Your task to perform on an android device: toggle improve location accuracy Image 0: 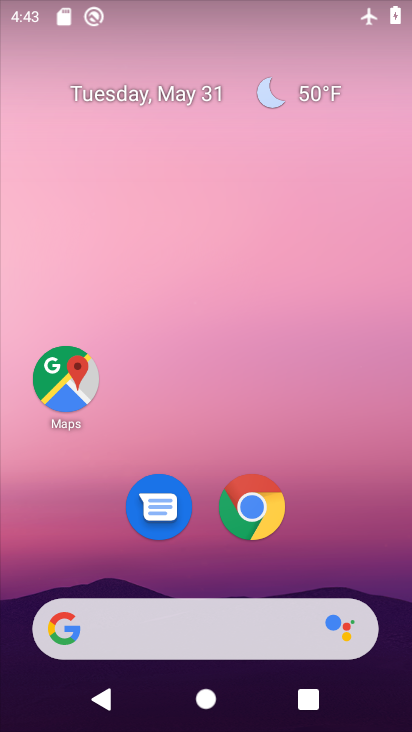
Step 0: click (194, 230)
Your task to perform on an android device: toggle improve location accuracy Image 1: 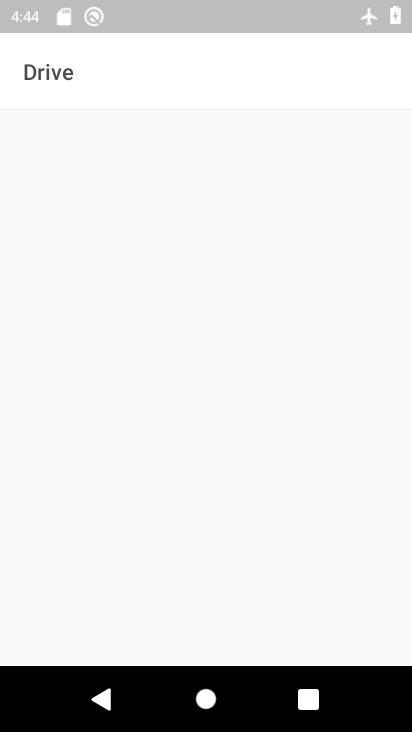
Step 1: press home button
Your task to perform on an android device: toggle improve location accuracy Image 2: 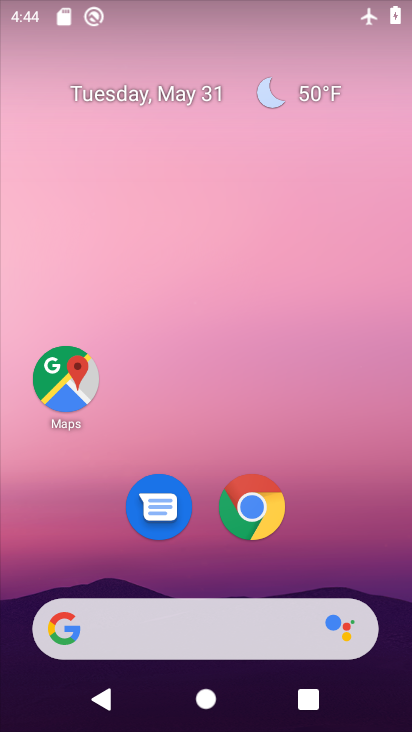
Step 2: drag from (322, 543) to (365, 48)
Your task to perform on an android device: toggle improve location accuracy Image 3: 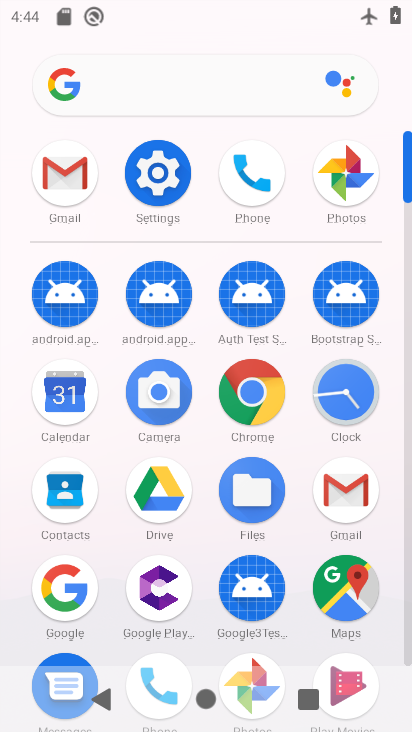
Step 3: click (160, 161)
Your task to perform on an android device: toggle improve location accuracy Image 4: 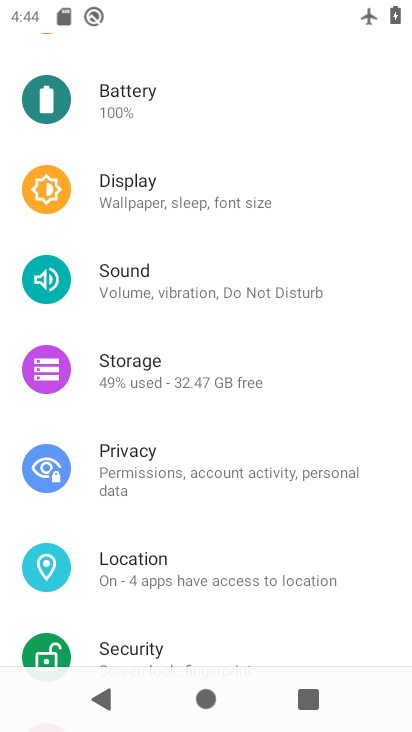
Step 4: click (236, 562)
Your task to perform on an android device: toggle improve location accuracy Image 5: 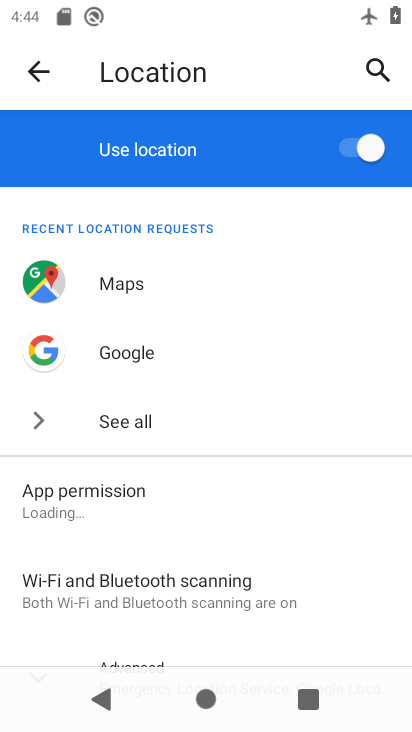
Step 5: click (228, 506)
Your task to perform on an android device: toggle improve location accuracy Image 6: 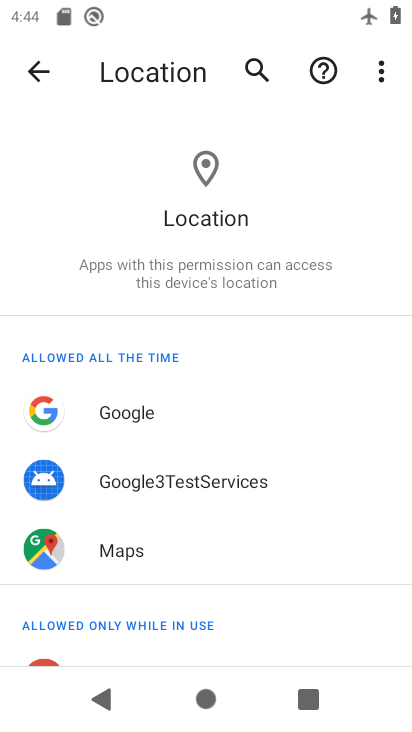
Step 6: drag from (221, 538) to (213, 71)
Your task to perform on an android device: toggle improve location accuracy Image 7: 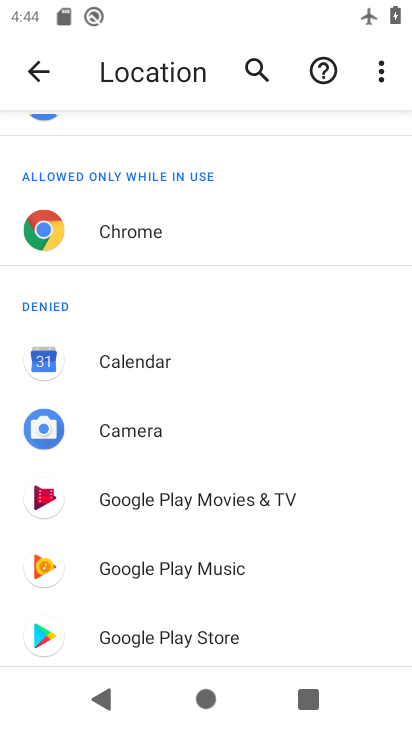
Step 7: drag from (211, 286) to (240, 612)
Your task to perform on an android device: toggle improve location accuracy Image 8: 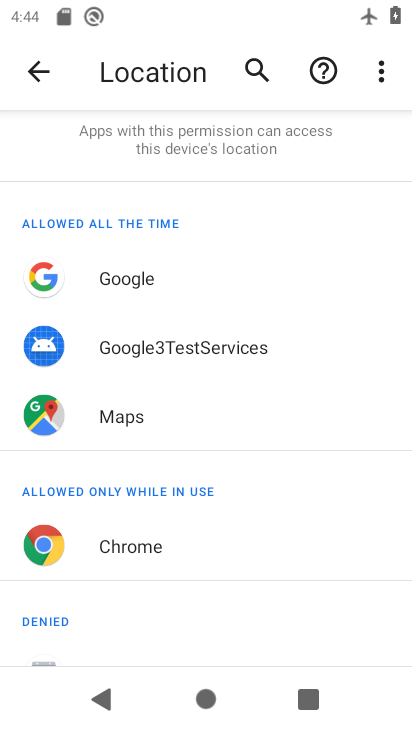
Step 8: drag from (226, 275) to (282, 582)
Your task to perform on an android device: toggle improve location accuracy Image 9: 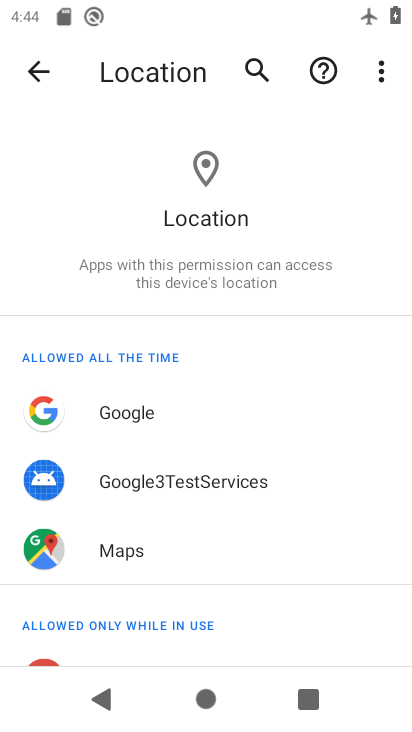
Step 9: click (29, 56)
Your task to perform on an android device: toggle improve location accuracy Image 10: 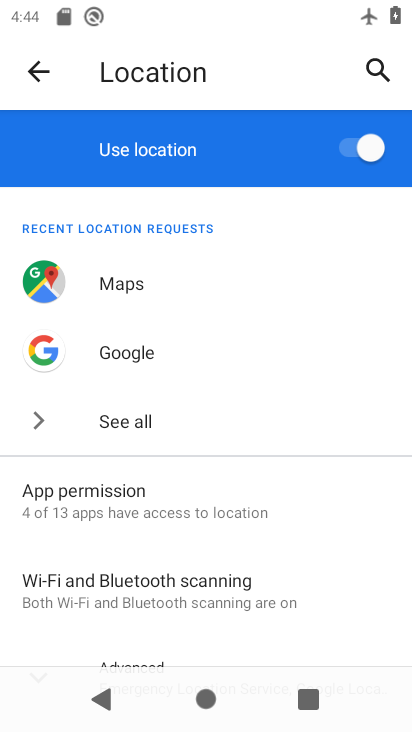
Step 10: drag from (145, 533) to (224, 215)
Your task to perform on an android device: toggle improve location accuracy Image 11: 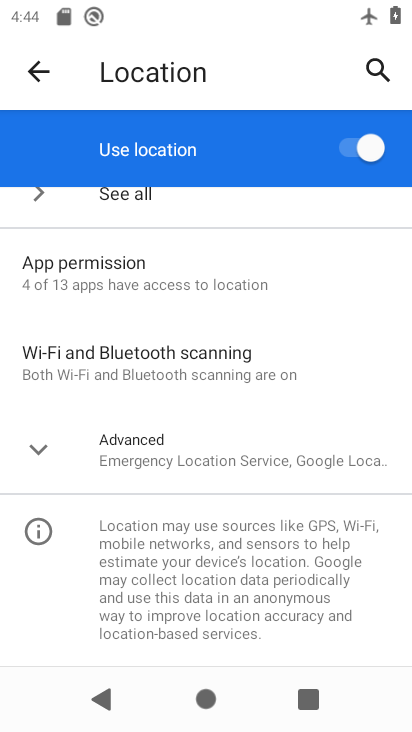
Step 11: click (33, 450)
Your task to perform on an android device: toggle improve location accuracy Image 12: 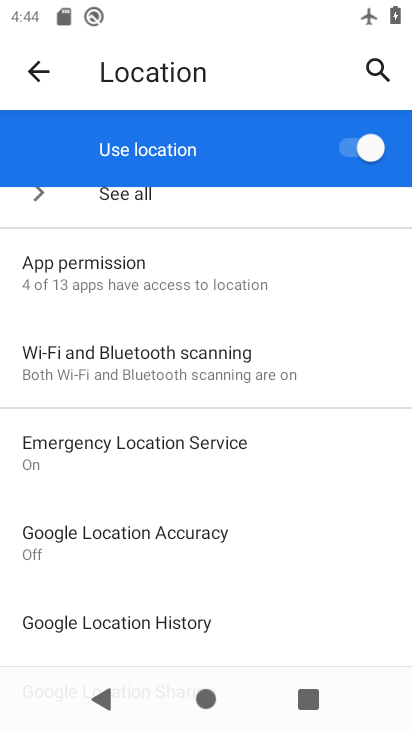
Step 12: click (185, 541)
Your task to perform on an android device: toggle improve location accuracy Image 13: 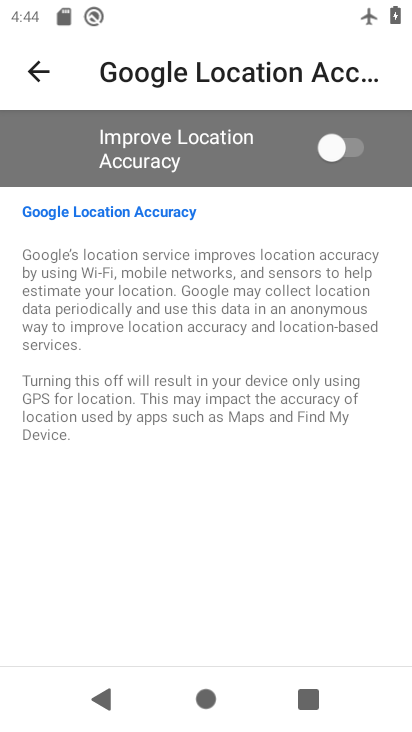
Step 13: click (340, 150)
Your task to perform on an android device: toggle improve location accuracy Image 14: 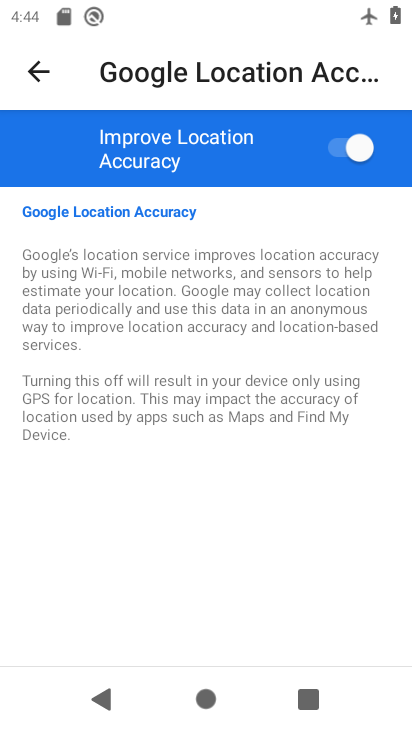
Step 14: task complete